Your task to perform on an android device: Go to ESPN.com Image 0: 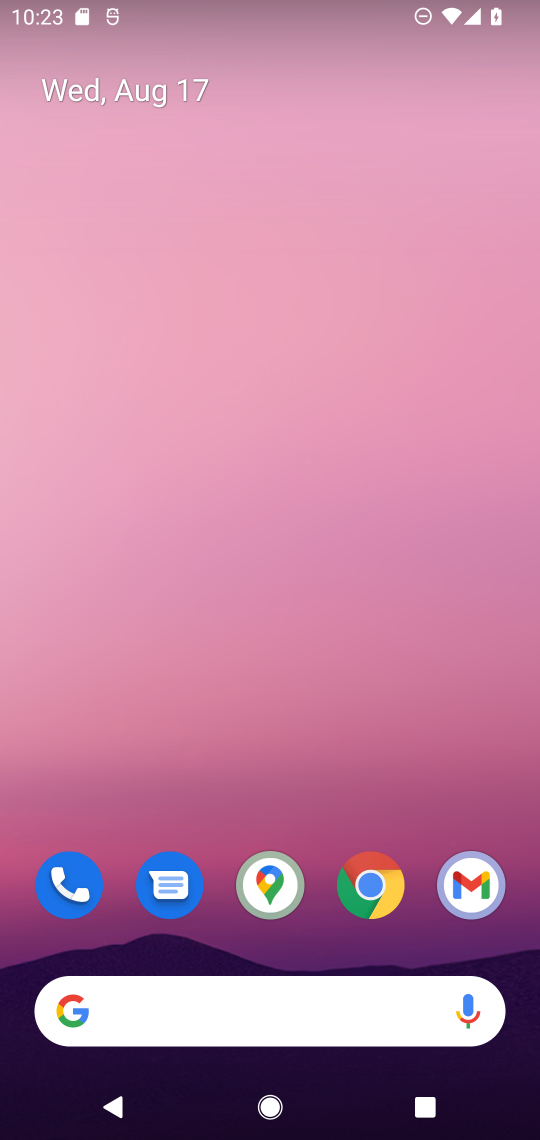
Step 0: click (369, 886)
Your task to perform on an android device: Go to ESPN.com Image 1: 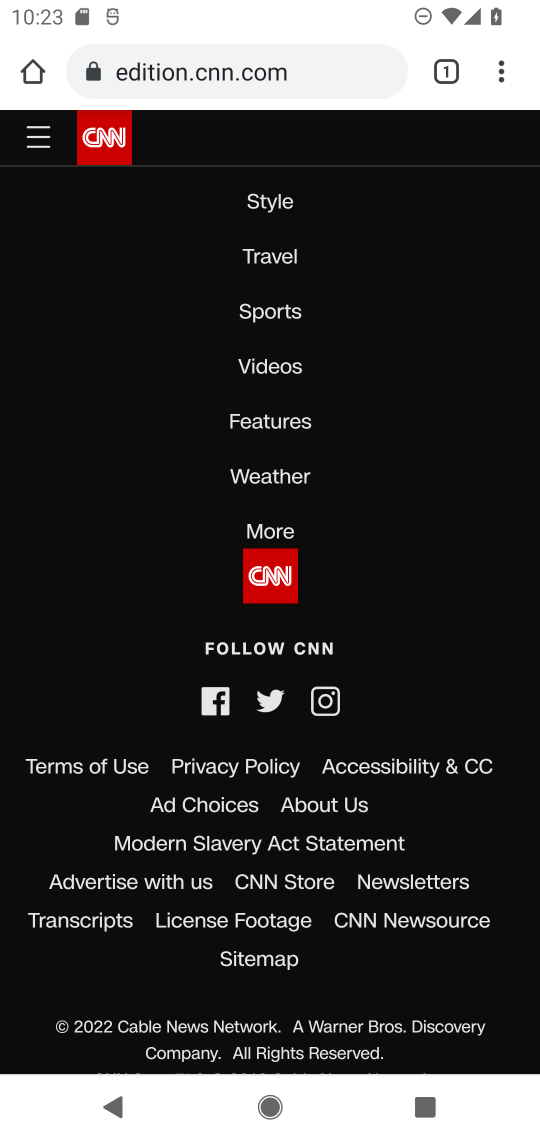
Step 1: click (318, 57)
Your task to perform on an android device: Go to ESPN.com Image 2: 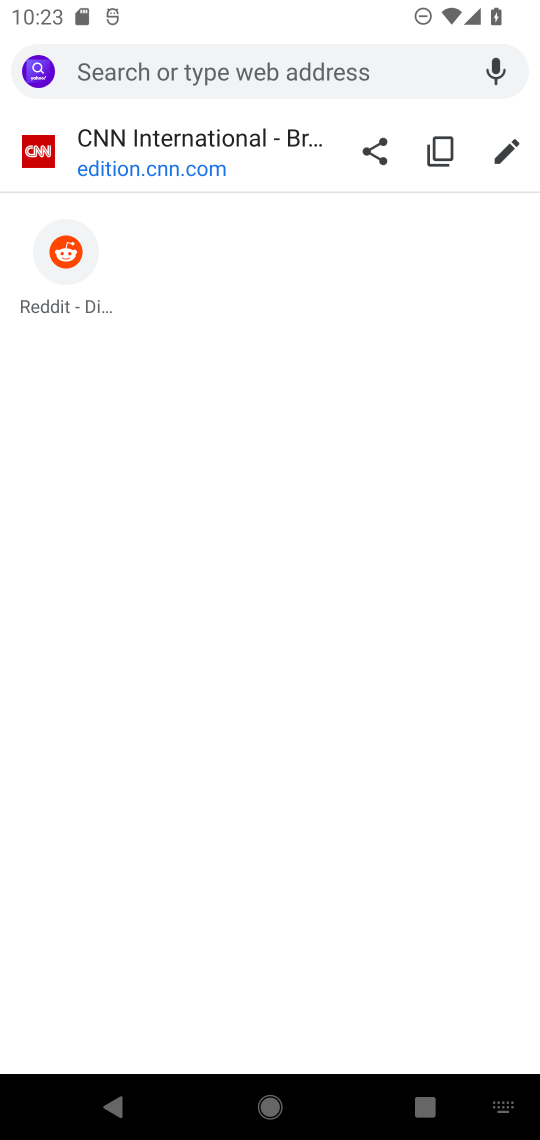
Step 2: type "espn.com"
Your task to perform on an android device: Go to ESPN.com Image 3: 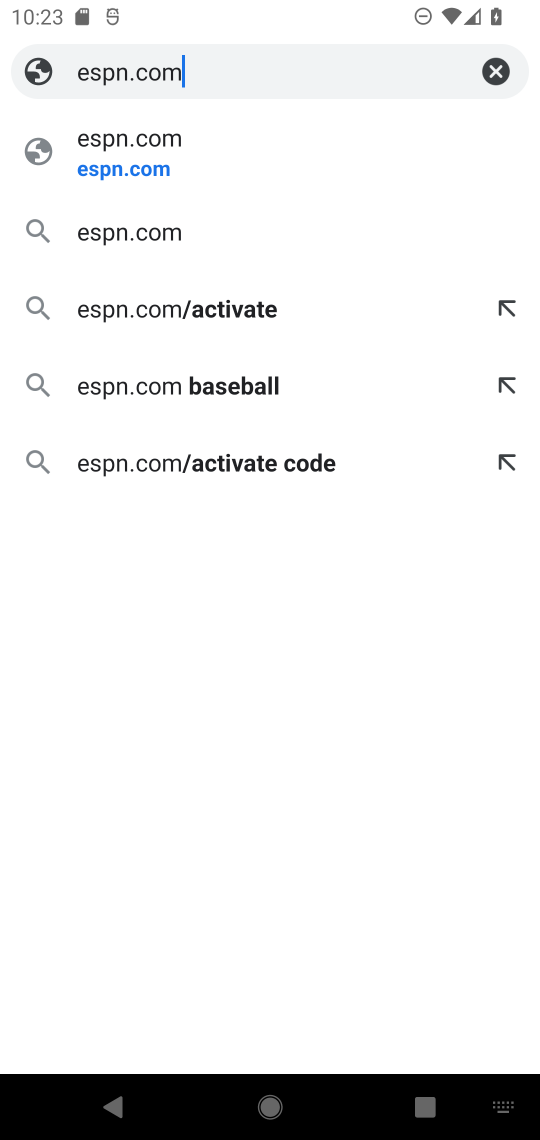
Step 3: click (127, 131)
Your task to perform on an android device: Go to ESPN.com Image 4: 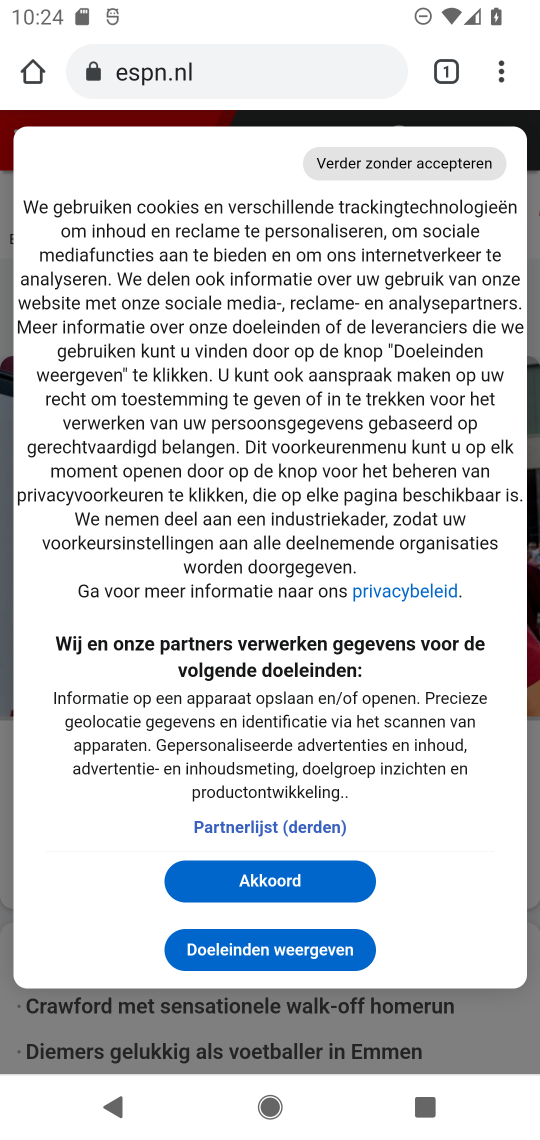
Step 4: click (268, 882)
Your task to perform on an android device: Go to ESPN.com Image 5: 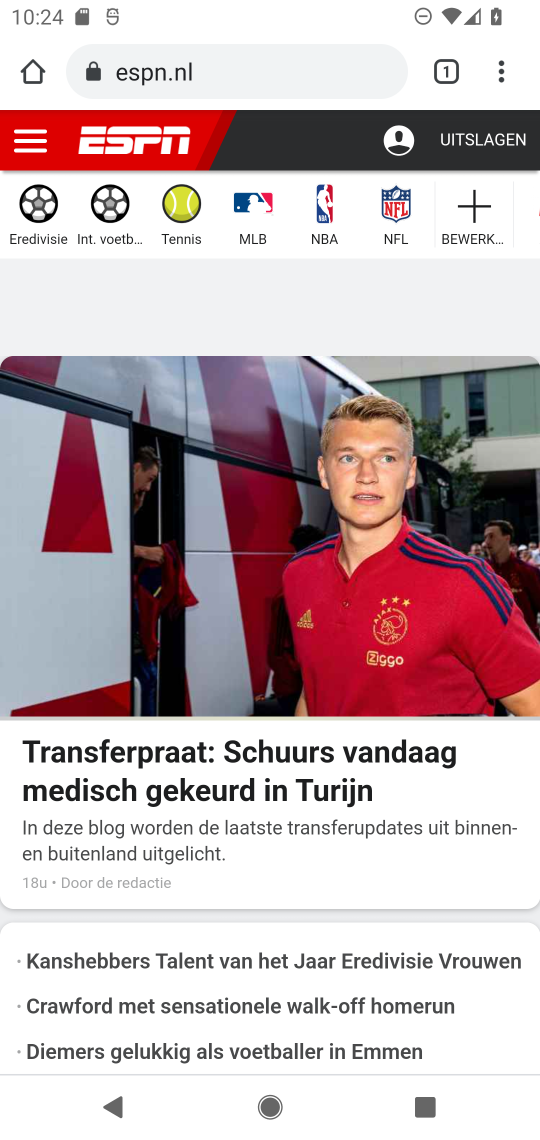
Step 5: task complete